Your task to perform on an android device: toggle translation in the chrome app Image 0: 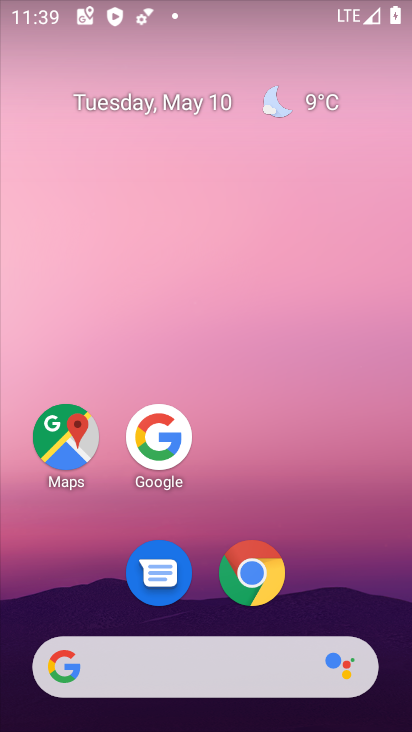
Step 0: click (258, 568)
Your task to perform on an android device: toggle translation in the chrome app Image 1: 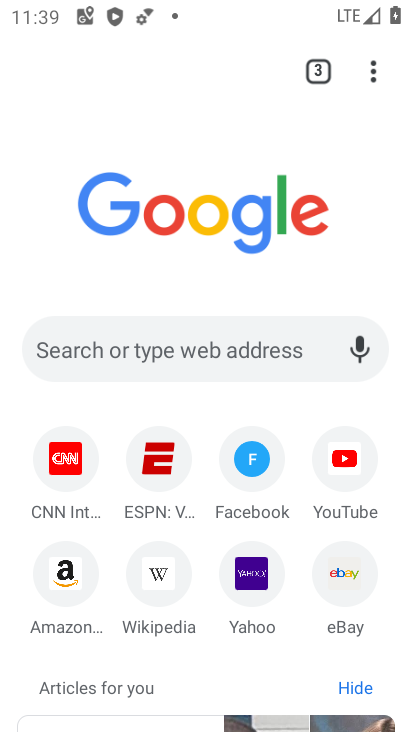
Step 1: drag from (374, 68) to (177, 597)
Your task to perform on an android device: toggle translation in the chrome app Image 2: 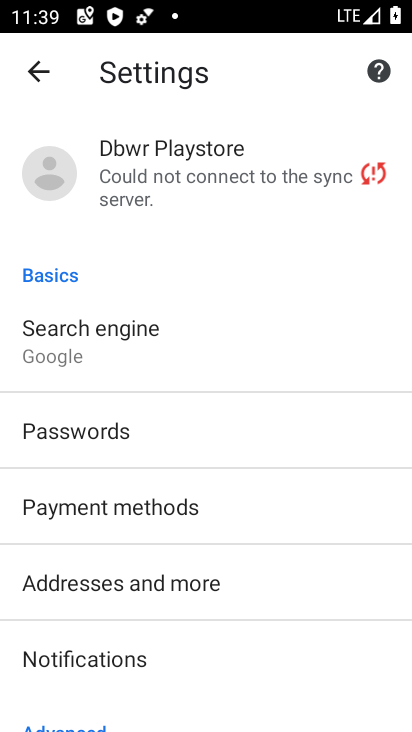
Step 2: drag from (169, 645) to (342, 227)
Your task to perform on an android device: toggle translation in the chrome app Image 3: 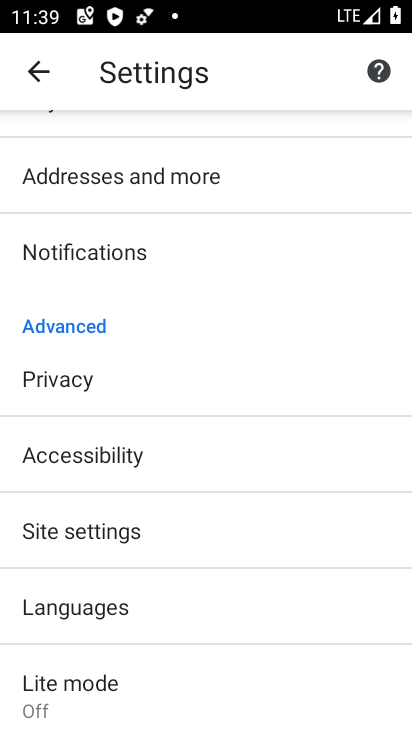
Step 3: click (104, 603)
Your task to perform on an android device: toggle translation in the chrome app Image 4: 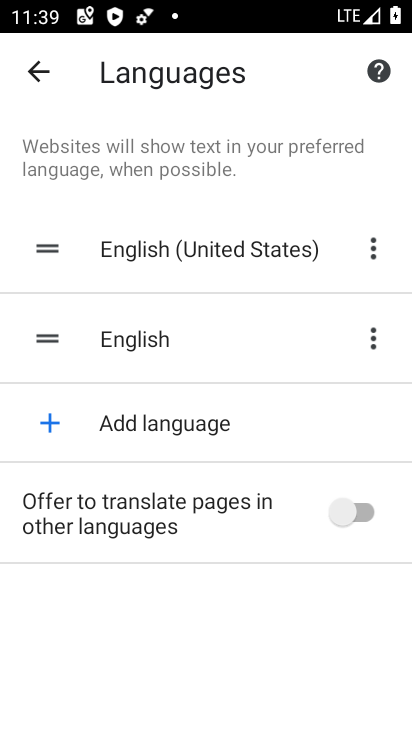
Step 4: click (365, 516)
Your task to perform on an android device: toggle translation in the chrome app Image 5: 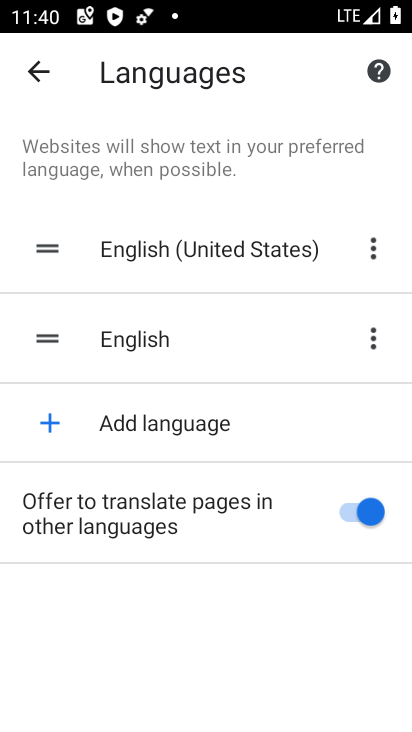
Step 5: task complete